Your task to perform on an android device: Open maps Image 0: 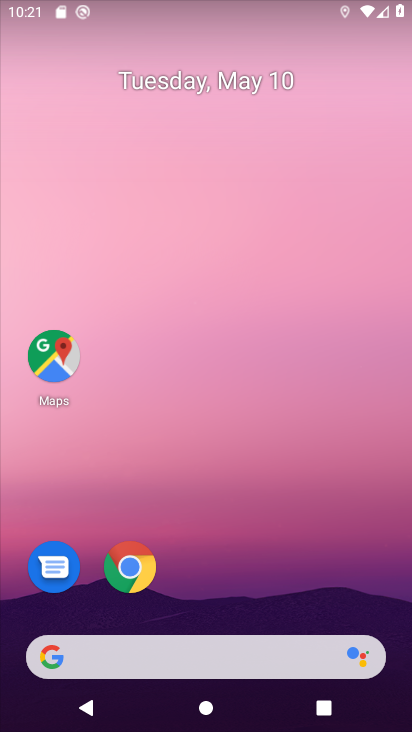
Step 0: click (61, 351)
Your task to perform on an android device: Open maps Image 1: 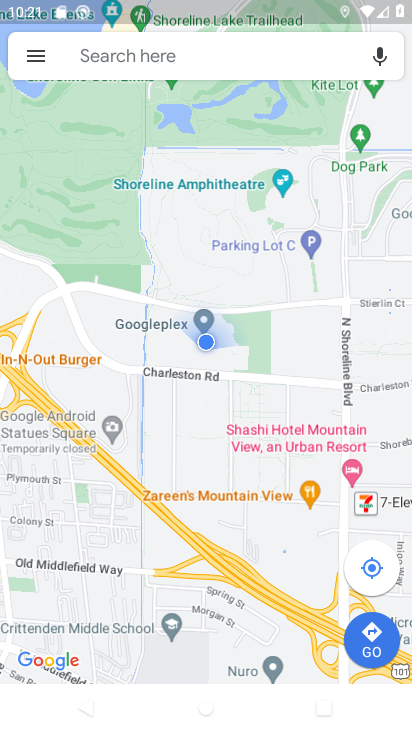
Step 1: press home button
Your task to perform on an android device: Open maps Image 2: 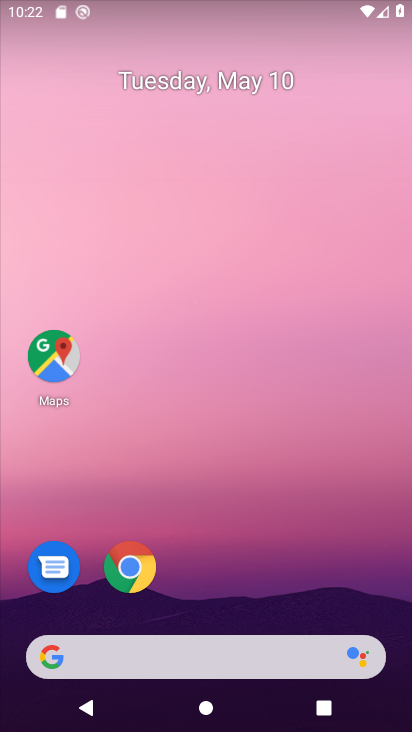
Step 2: click (40, 359)
Your task to perform on an android device: Open maps Image 3: 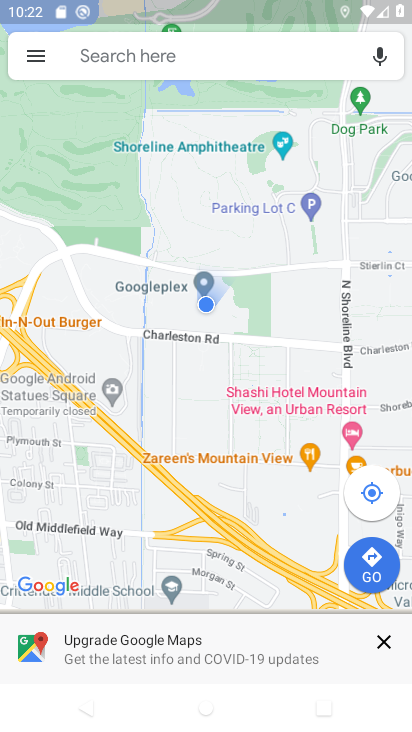
Step 3: task complete